Your task to perform on an android device: See recent photos Image 0: 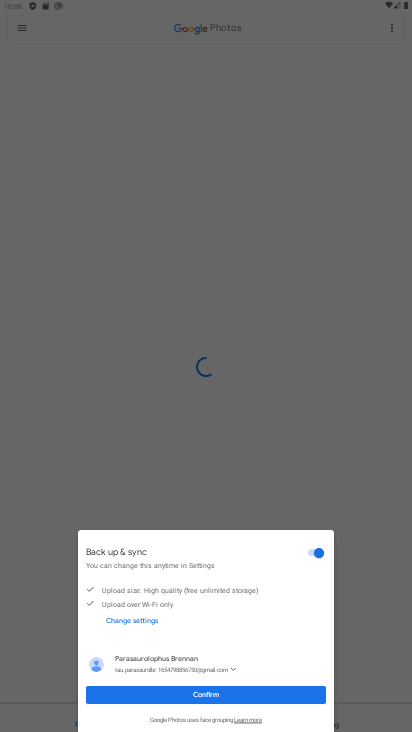
Step 0: press home button
Your task to perform on an android device: See recent photos Image 1: 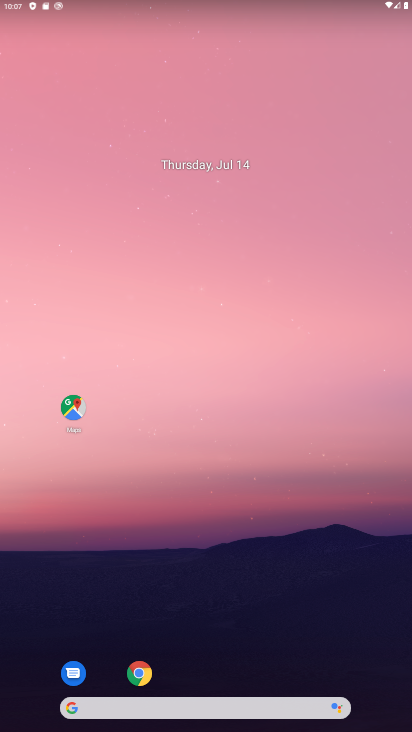
Step 1: drag from (228, 683) to (195, 323)
Your task to perform on an android device: See recent photos Image 2: 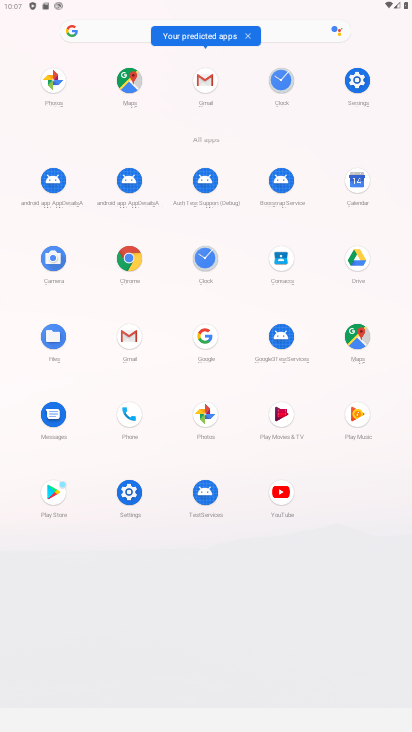
Step 2: click (204, 410)
Your task to perform on an android device: See recent photos Image 3: 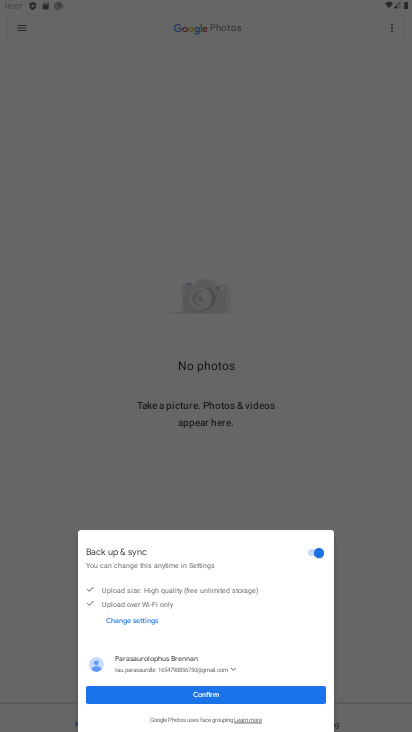
Step 3: click (219, 696)
Your task to perform on an android device: See recent photos Image 4: 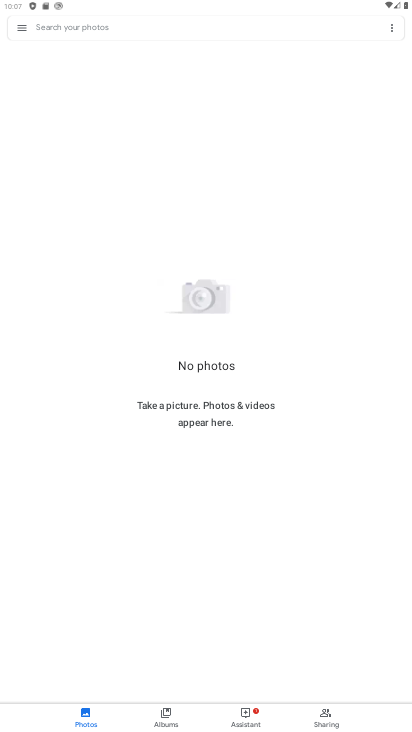
Step 4: task complete